Your task to perform on an android device: Do I have any events today? Image 0: 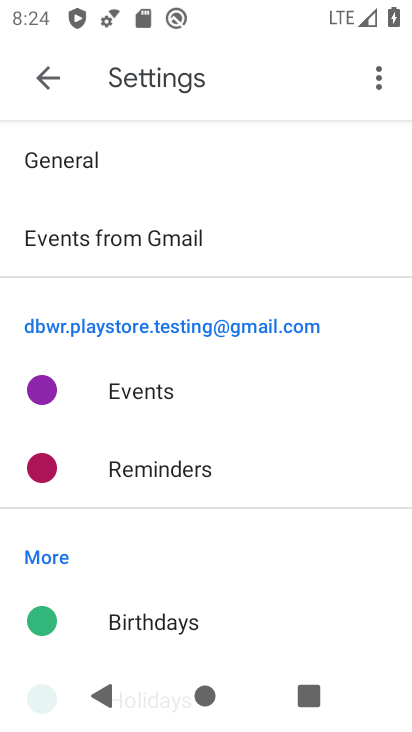
Step 0: press home button
Your task to perform on an android device: Do I have any events today? Image 1: 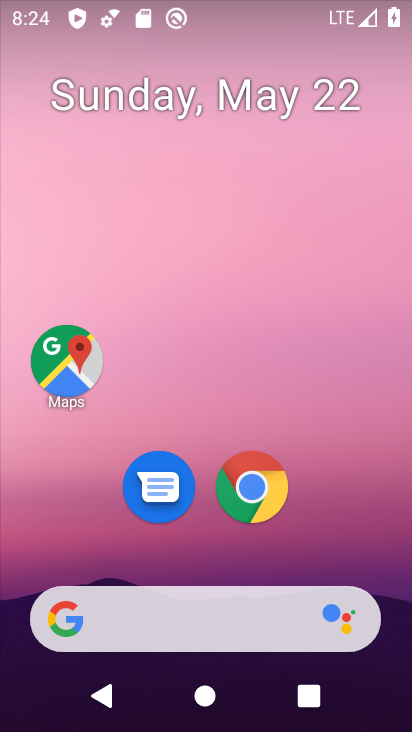
Step 1: drag from (363, 536) to (358, 1)
Your task to perform on an android device: Do I have any events today? Image 2: 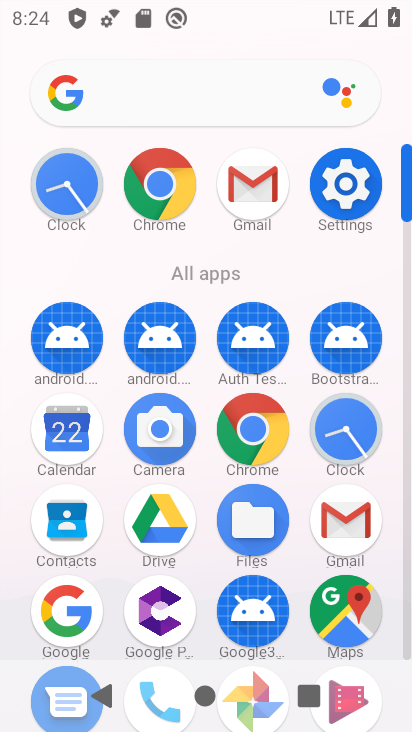
Step 2: click (50, 433)
Your task to perform on an android device: Do I have any events today? Image 3: 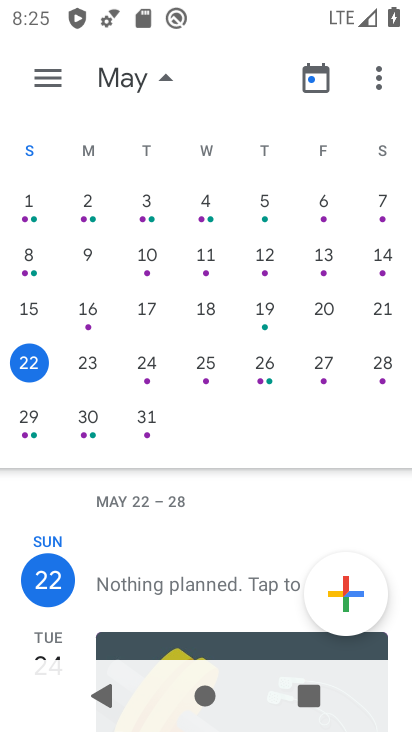
Step 3: task complete